Your task to perform on an android device: Open Wikipedia Image 0: 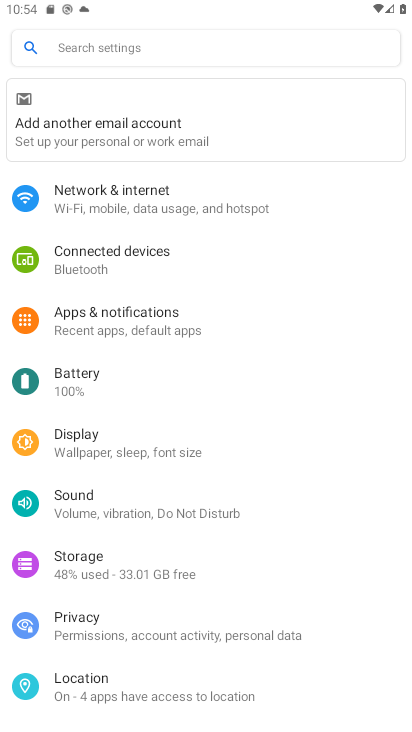
Step 0: press home button
Your task to perform on an android device: Open Wikipedia Image 1: 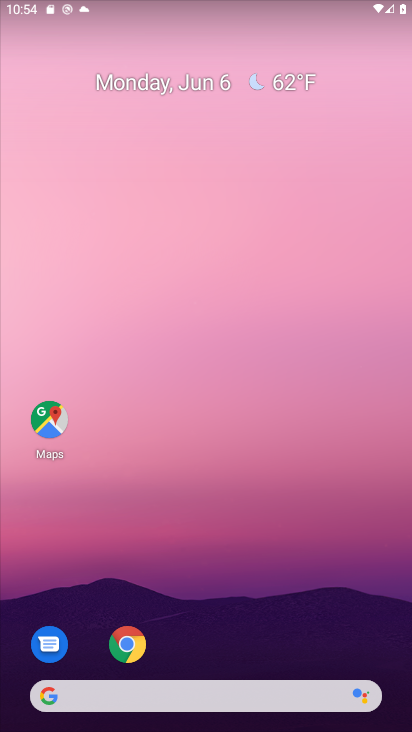
Step 1: click (131, 646)
Your task to perform on an android device: Open Wikipedia Image 2: 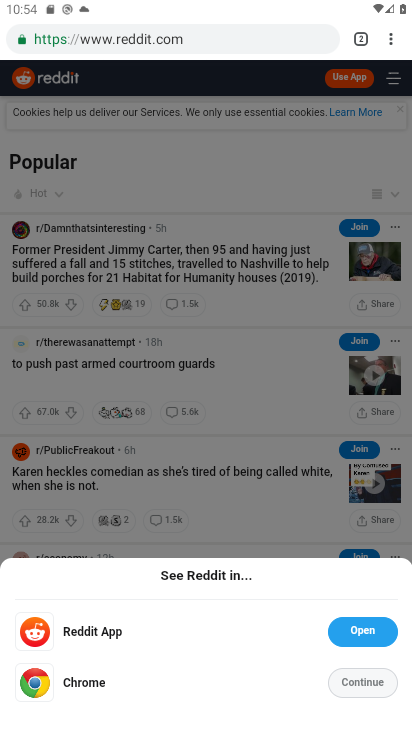
Step 2: press back button
Your task to perform on an android device: Open Wikipedia Image 3: 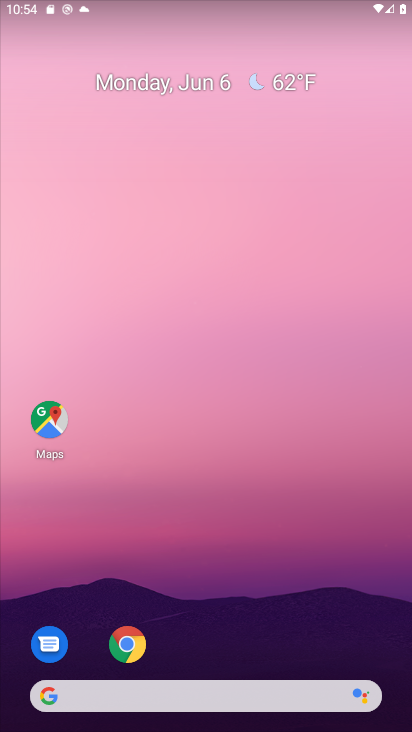
Step 3: click (131, 642)
Your task to perform on an android device: Open Wikipedia Image 4: 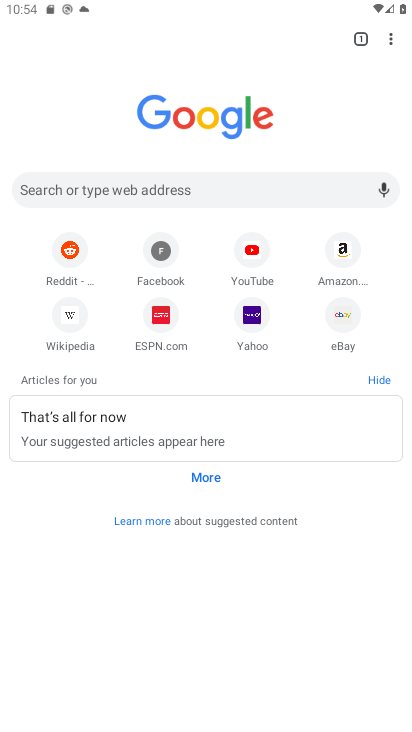
Step 4: click (65, 322)
Your task to perform on an android device: Open Wikipedia Image 5: 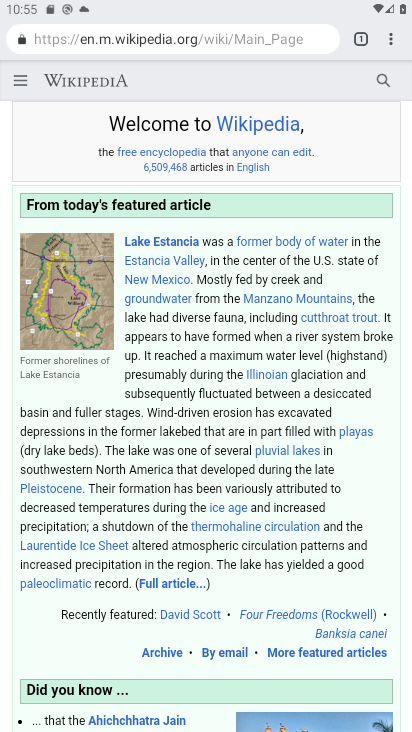
Step 5: drag from (270, 537) to (18, 386)
Your task to perform on an android device: Open Wikipedia Image 6: 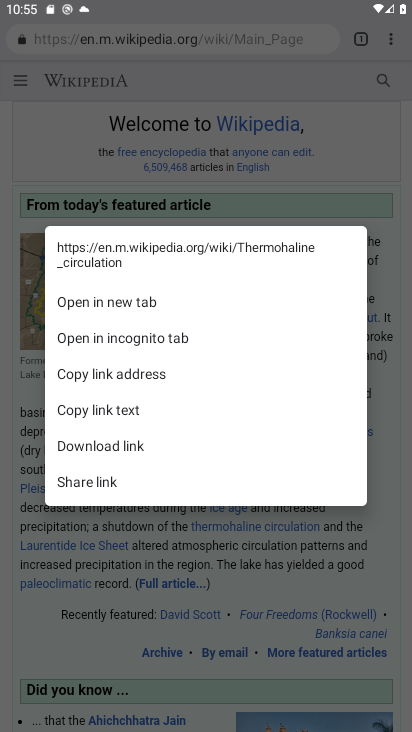
Step 6: click (216, 549)
Your task to perform on an android device: Open Wikipedia Image 7: 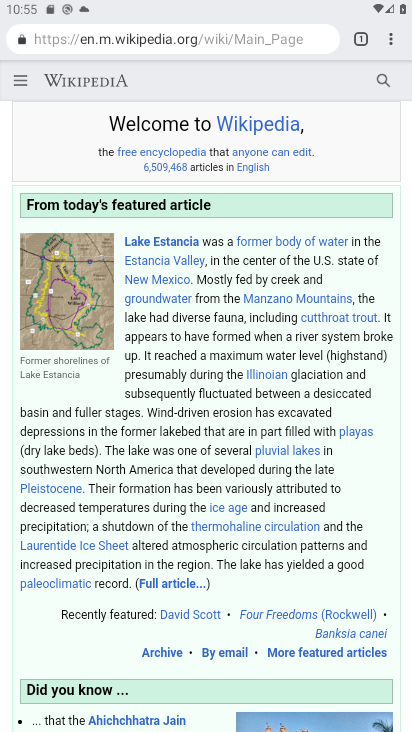
Step 7: task complete